Your task to perform on an android device: uninstall "Nova Launcher" Image 0: 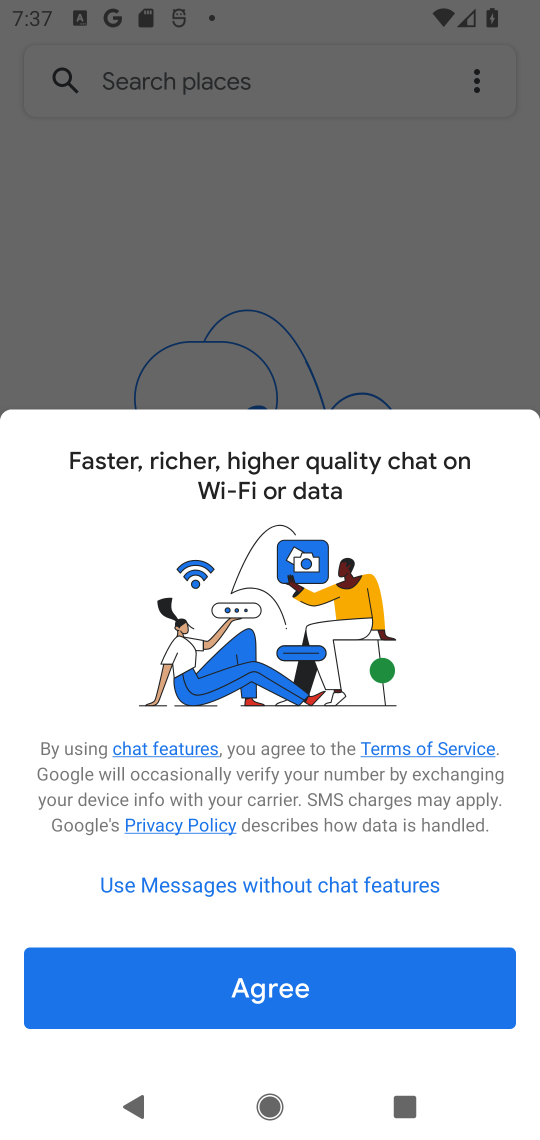
Step 0: press home button
Your task to perform on an android device: uninstall "Nova Launcher" Image 1: 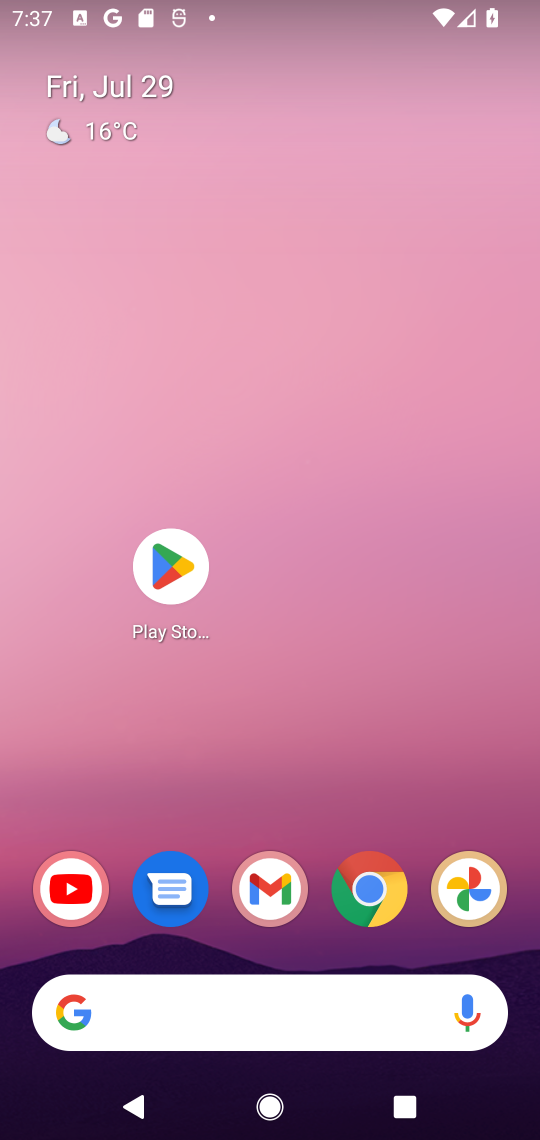
Step 1: click (181, 575)
Your task to perform on an android device: uninstall "Nova Launcher" Image 2: 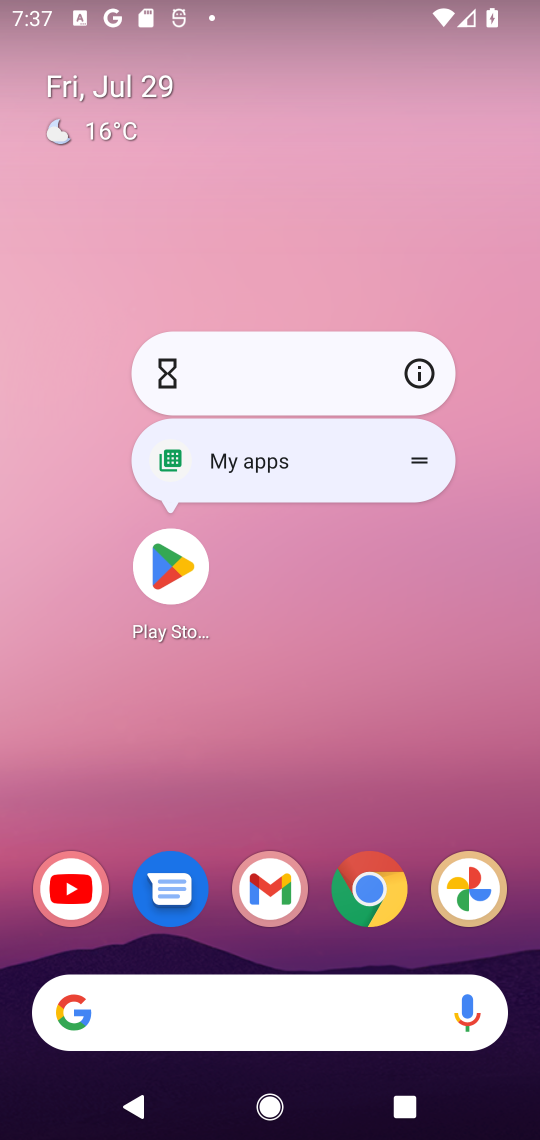
Step 2: click (164, 568)
Your task to perform on an android device: uninstall "Nova Launcher" Image 3: 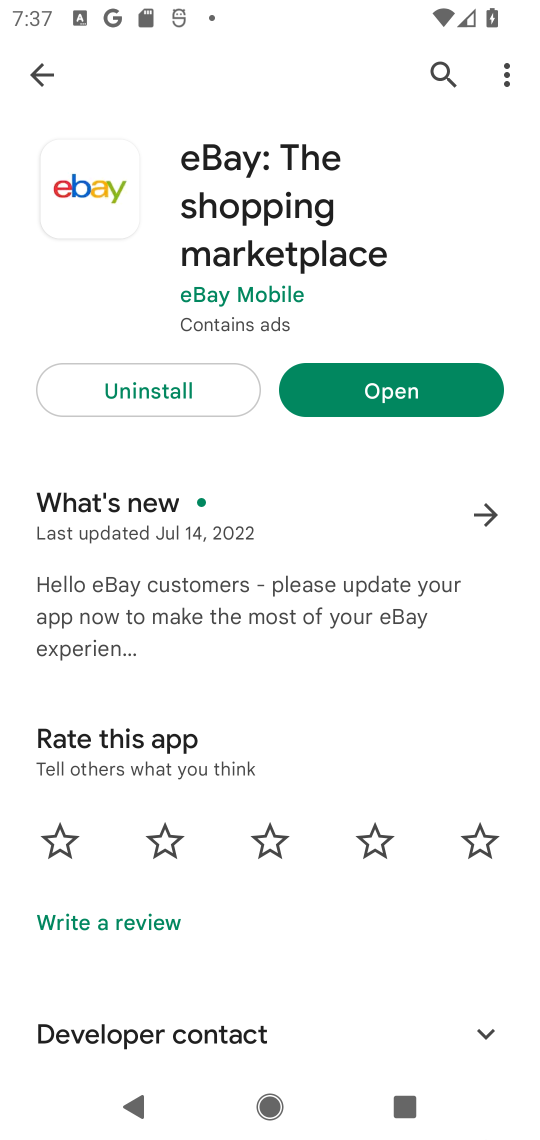
Step 3: click (440, 72)
Your task to perform on an android device: uninstall "Nova Launcher" Image 4: 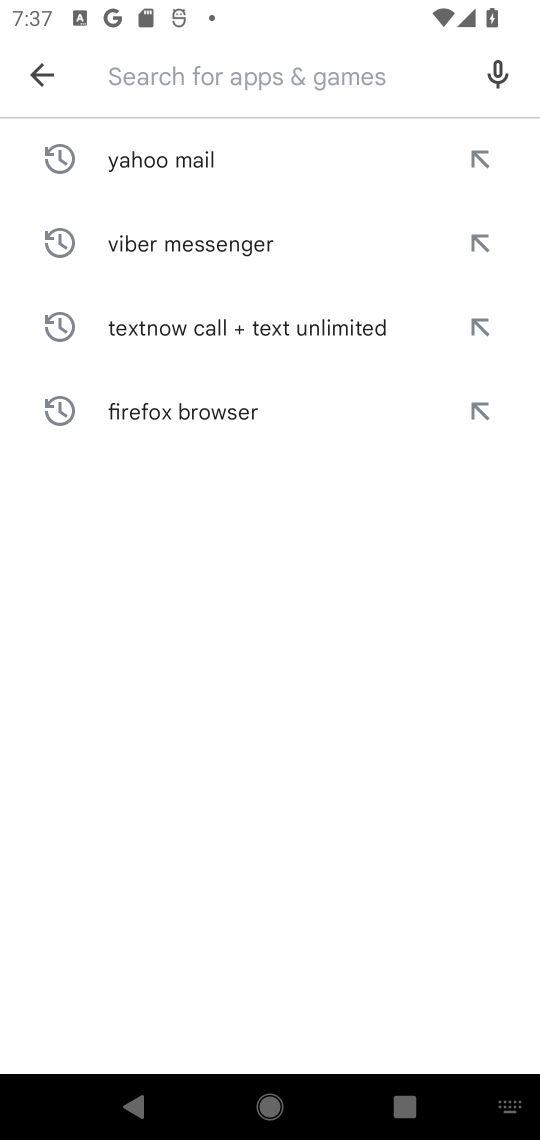
Step 4: type "Nova Launcher"
Your task to perform on an android device: uninstall "Nova Launcher" Image 5: 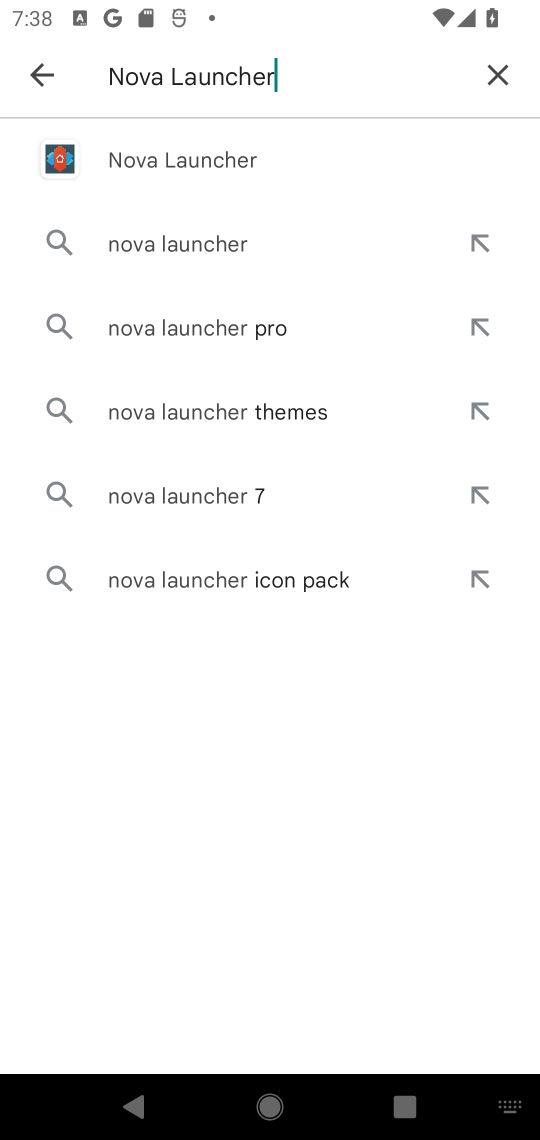
Step 5: click (204, 167)
Your task to perform on an android device: uninstall "Nova Launcher" Image 6: 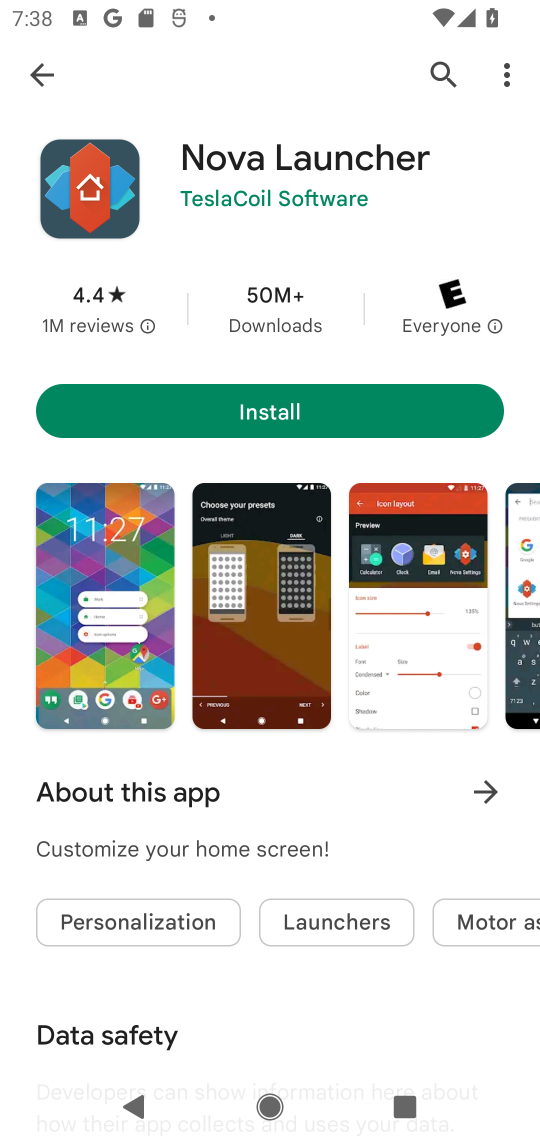
Step 6: task complete